Your task to perform on an android device: find which apps use the phone's location Image 0: 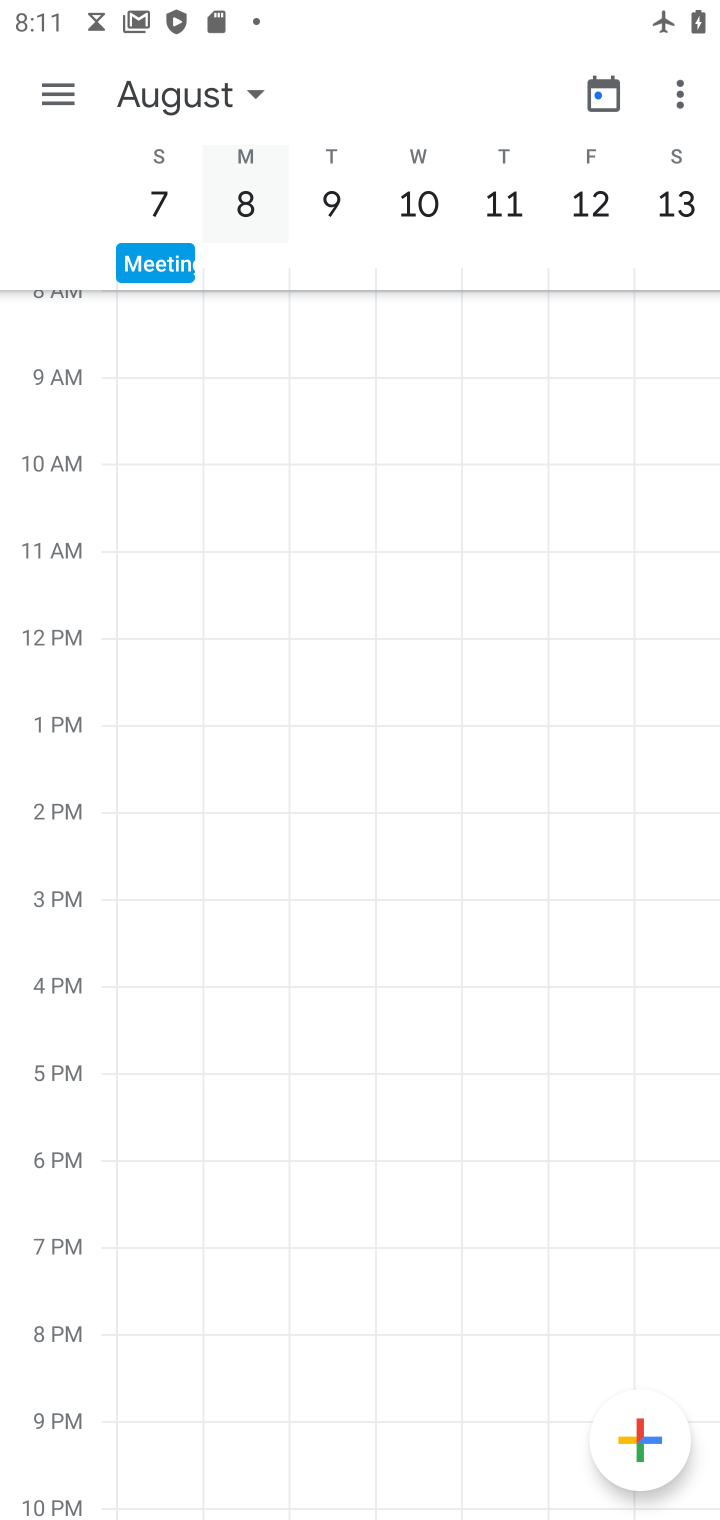
Step 0: press home button
Your task to perform on an android device: find which apps use the phone's location Image 1: 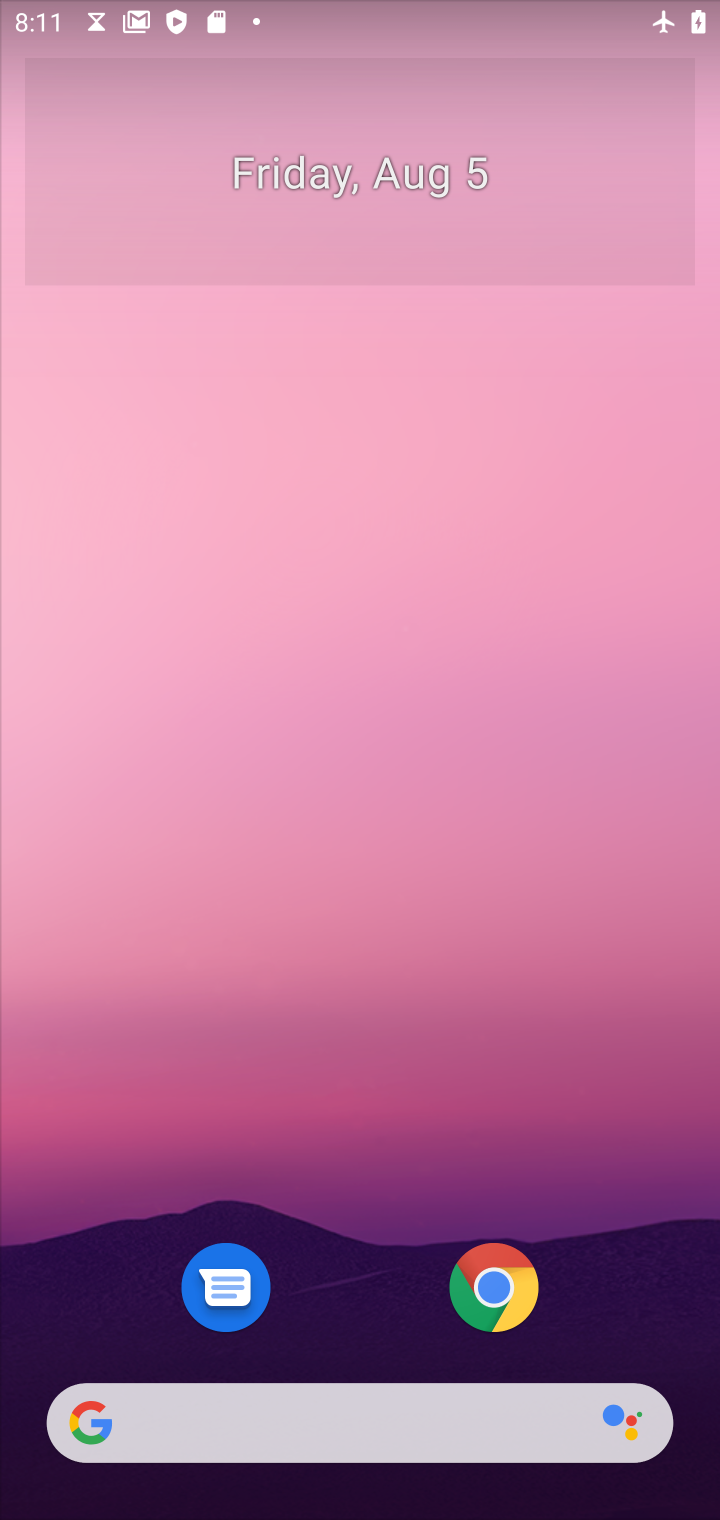
Step 1: drag from (353, 1148) to (363, 368)
Your task to perform on an android device: find which apps use the phone's location Image 2: 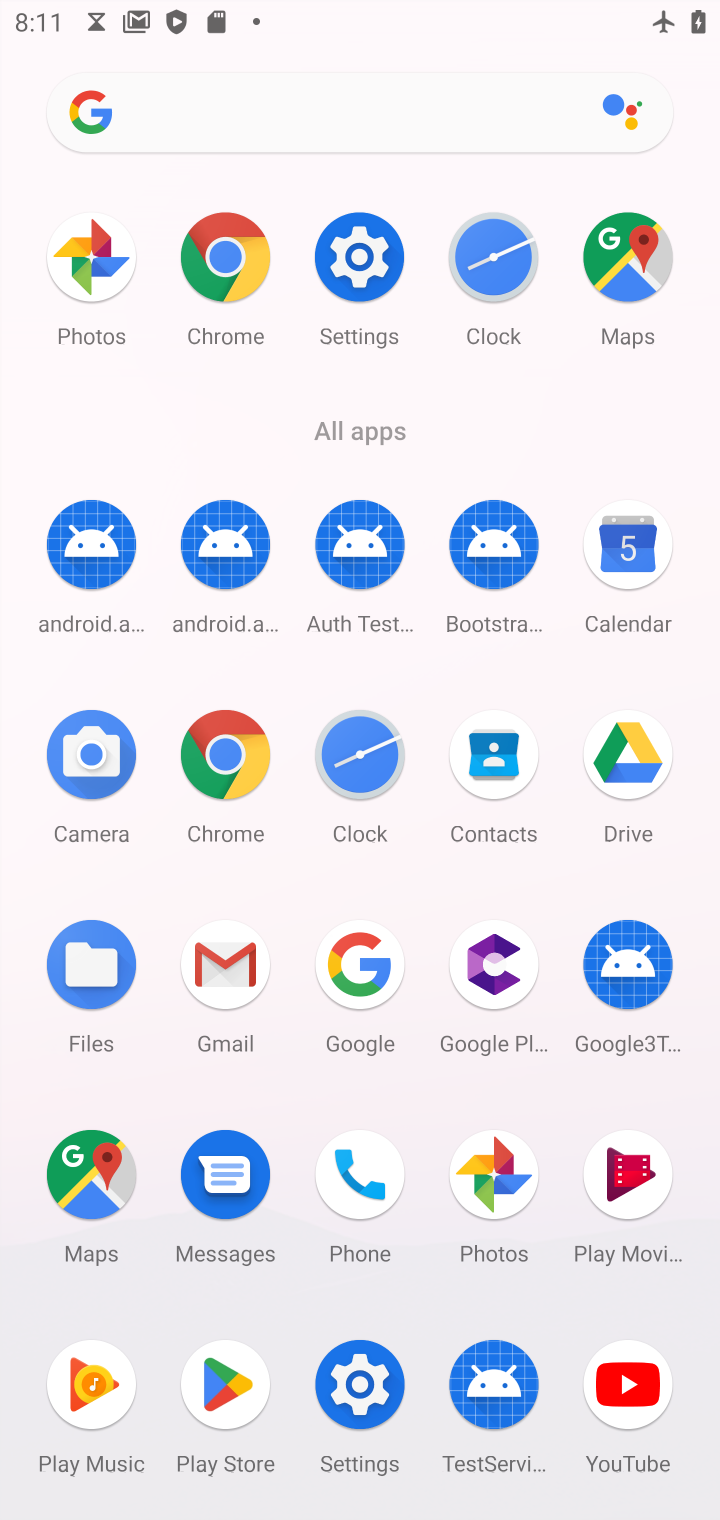
Step 2: click (342, 258)
Your task to perform on an android device: find which apps use the phone's location Image 3: 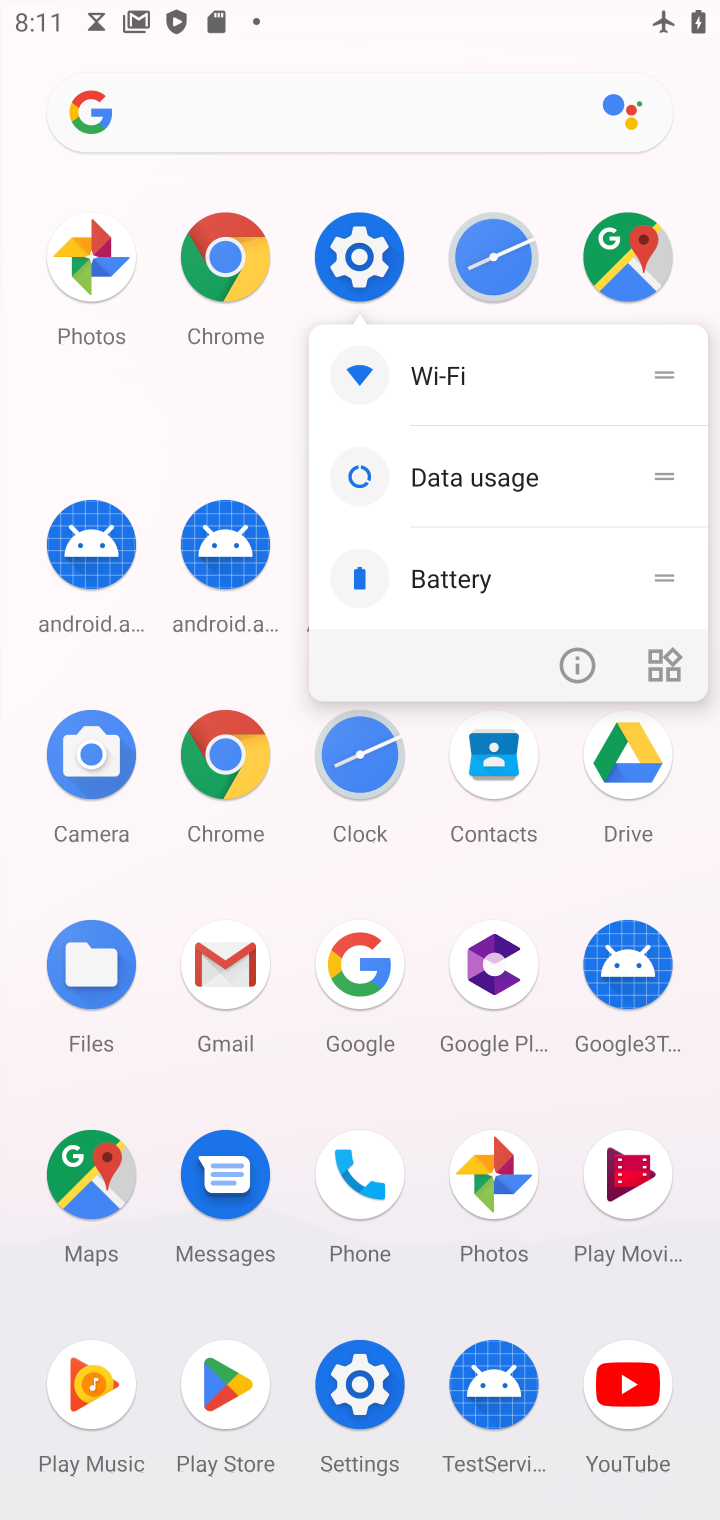
Step 3: click (331, 283)
Your task to perform on an android device: find which apps use the phone's location Image 4: 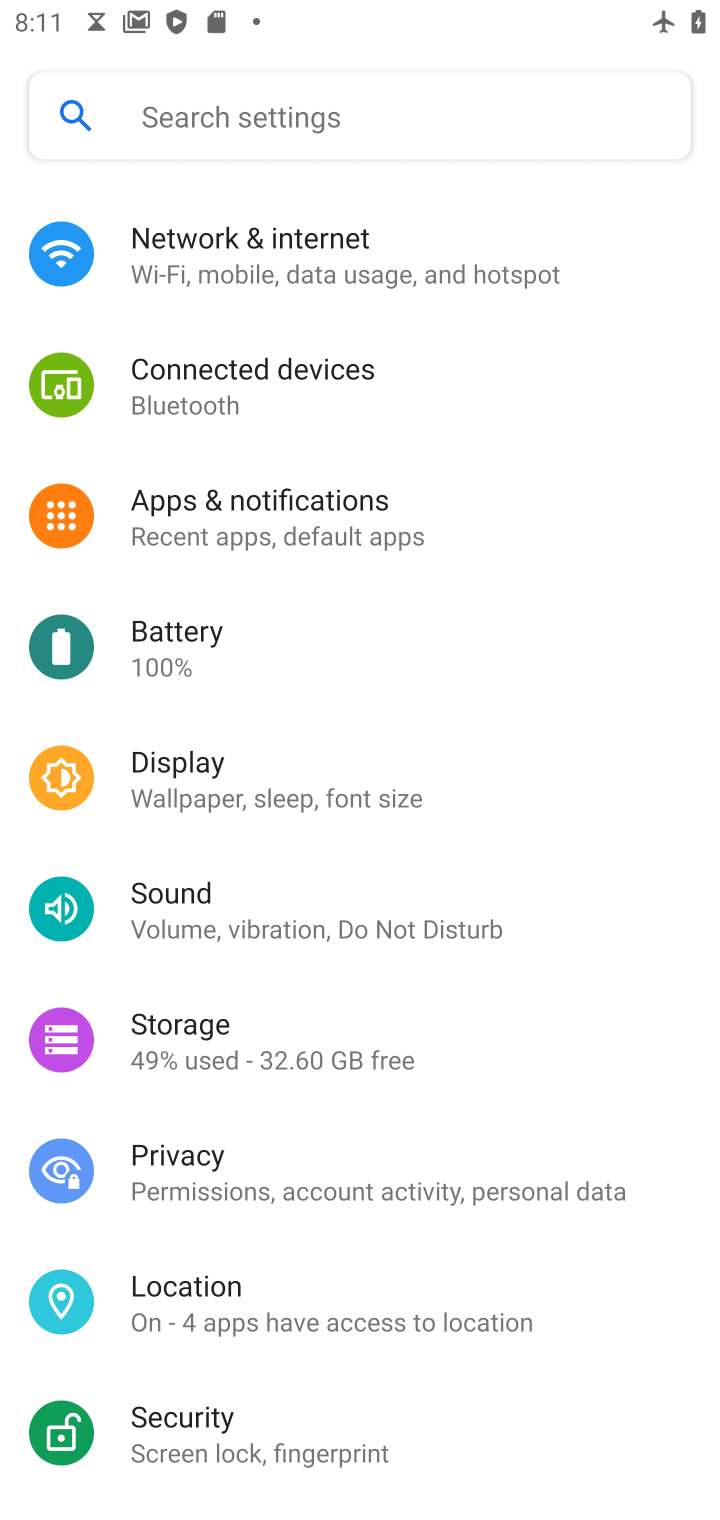
Step 4: click (166, 1281)
Your task to perform on an android device: find which apps use the phone's location Image 5: 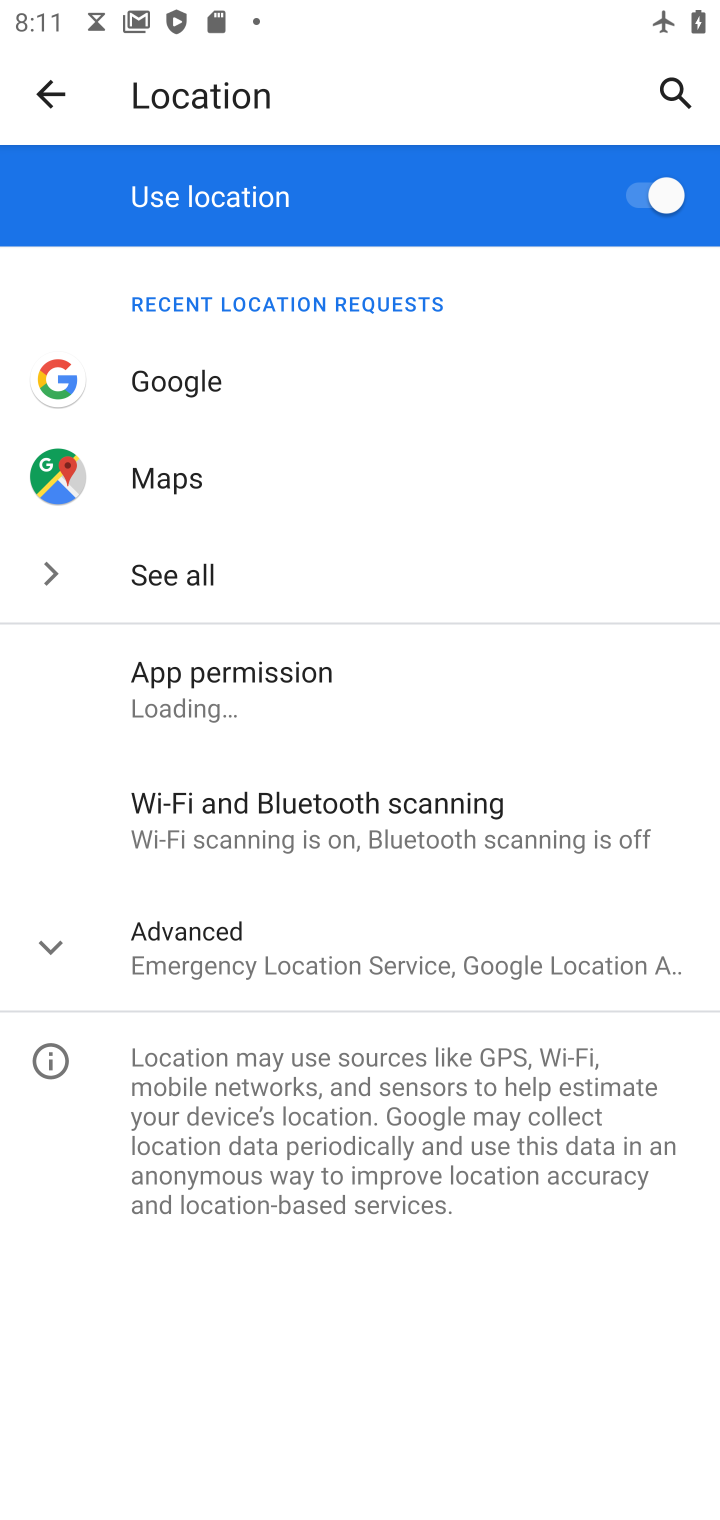
Step 5: click (187, 676)
Your task to perform on an android device: find which apps use the phone's location Image 6: 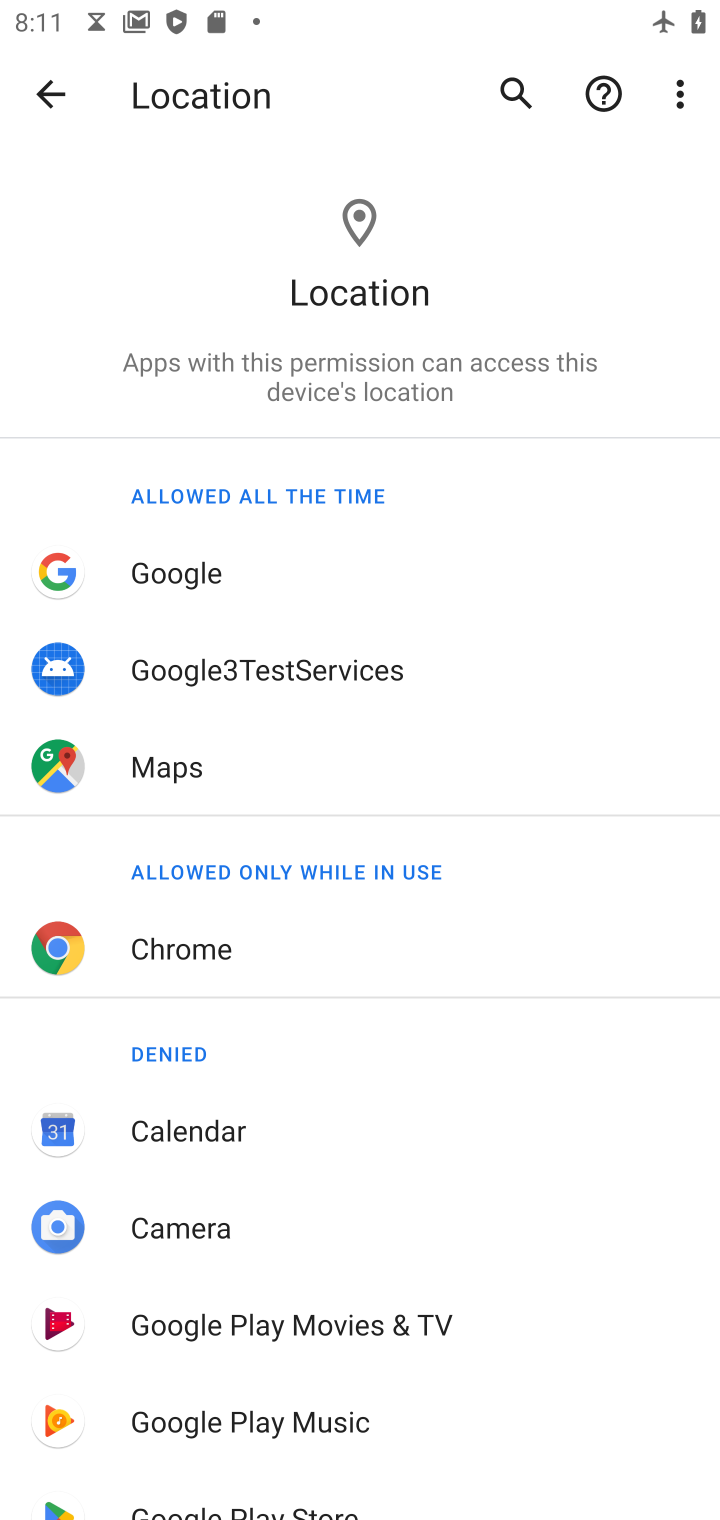
Step 6: task complete